Your task to perform on an android device: Go to Google maps Image 0: 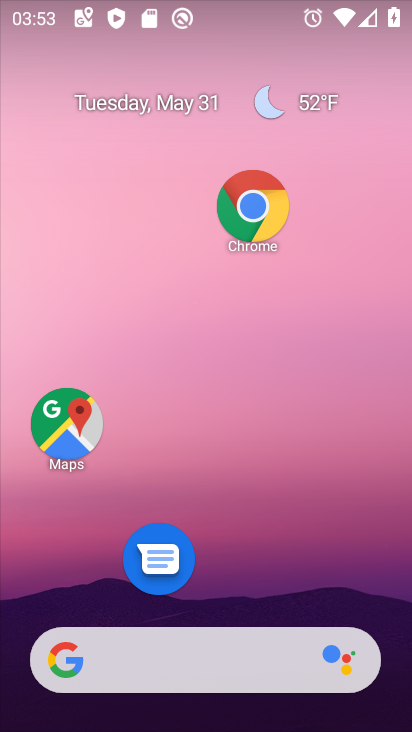
Step 0: drag from (236, 589) to (222, 385)
Your task to perform on an android device: Go to Google maps Image 1: 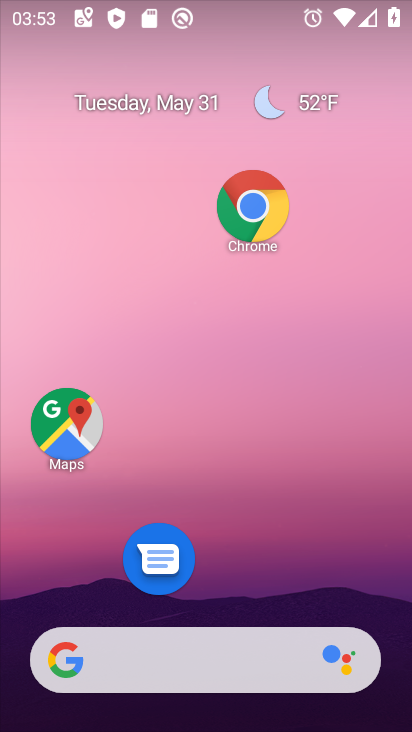
Step 1: click (75, 445)
Your task to perform on an android device: Go to Google maps Image 2: 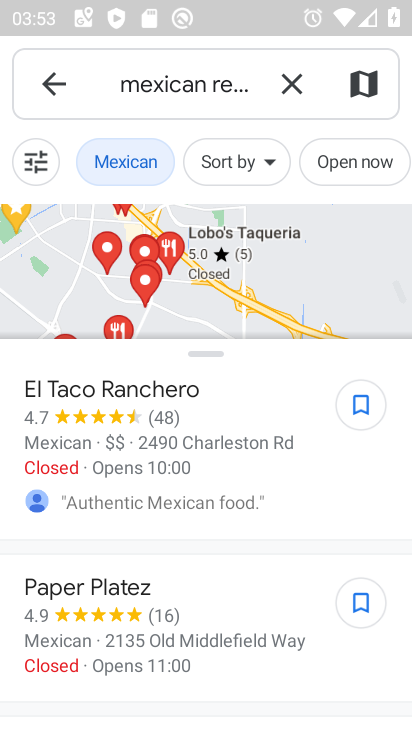
Step 2: task complete